Your task to perform on an android device: make emails show in primary in the gmail app Image 0: 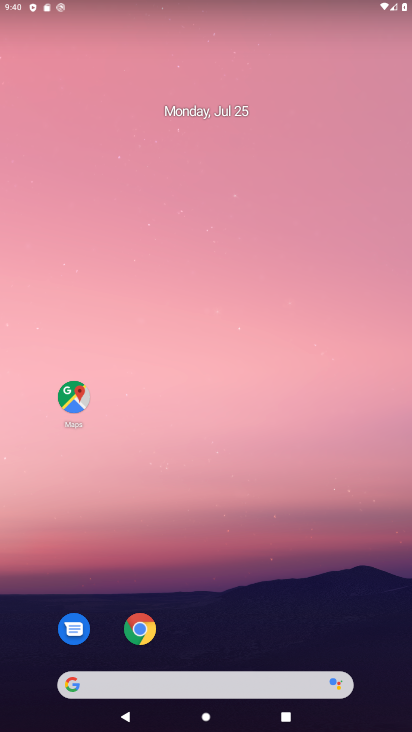
Step 0: drag from (205, 507) to (110, 18)
Your task to perform on an android device: make emails show in primary in the gmail app Image 1: 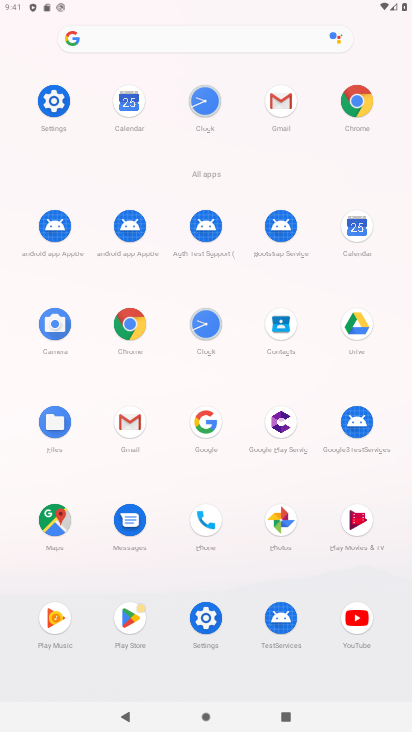
Step 1: click (272, 84)
Your task to perform on an android device: make emails show in primary in the gmail app Image 2: 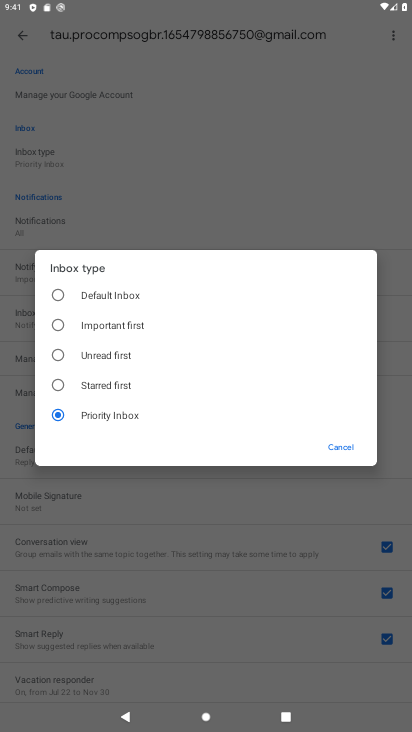
Step 2: click (108, 298)
Your task to perform on an android device: make emails show in primary in the gmail app Image 3: 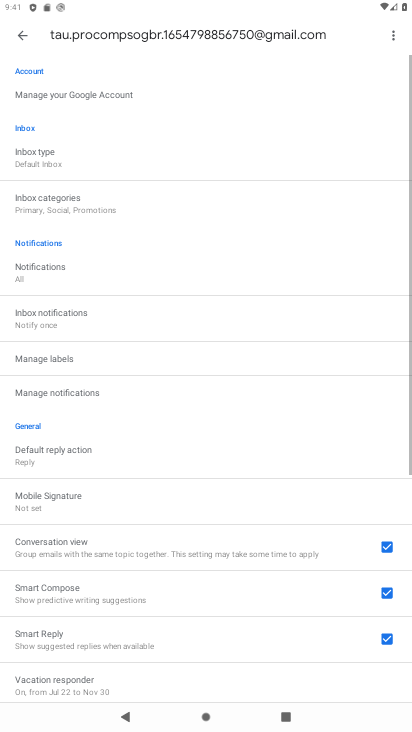
Step 3: click (62, 208)
Your task to perform on an android device: make emails show in primary in the gmail app Image 4: 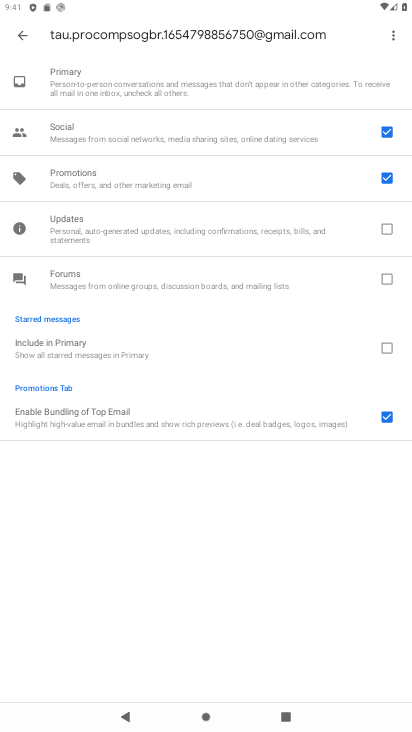
Step 4: task complete